Your task to perform on an android device: Open the calendar app, open the side menu, and click the "Day" option Image 0: 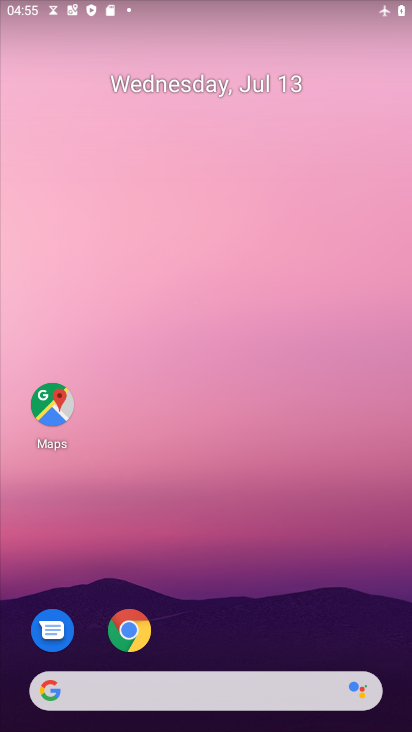
Step 0: drag from (324, 680) to (273, 16)
Your task to perform on an android device: Open the calendar app, open the side menu, and click the "Day" option Image 1: 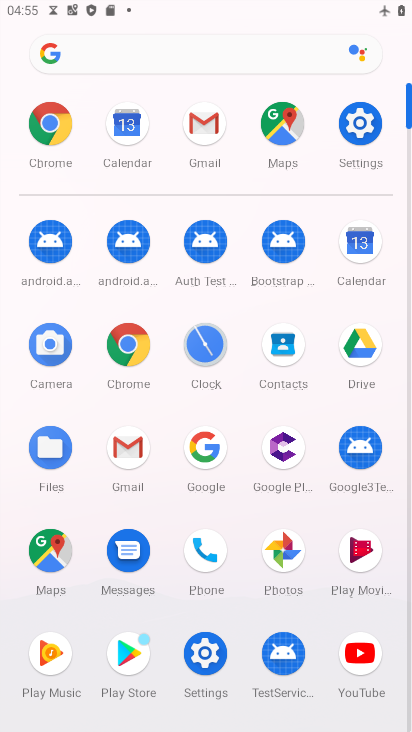
Step 1: click (355, 234)
Your task to perform on an android device: Open the calendar app, open the side menu, and click the "Day" option Image 2: 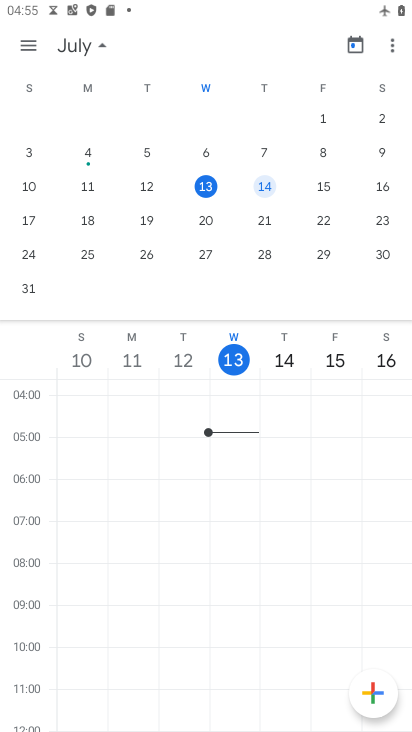
Step 2: click (25, 39)
Your task to perform on an android device: Open the calendar app, open the side menu, and click the "Day" option Image 3: 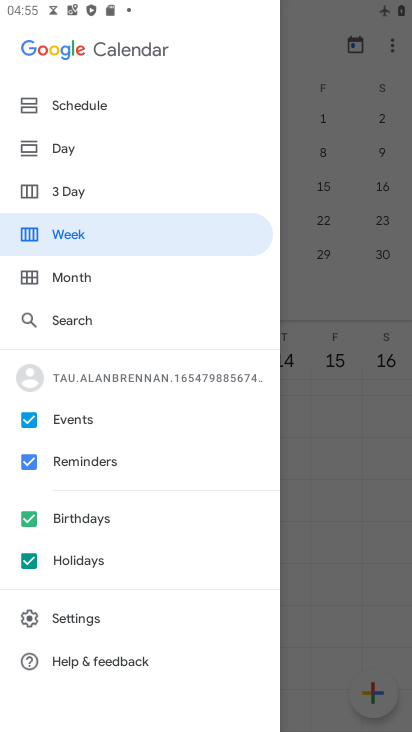
Step 3: click (69, 144)
Your task to perform on an android device: Open the calendar app, open the side menu, and click the "Day" option Image 4: 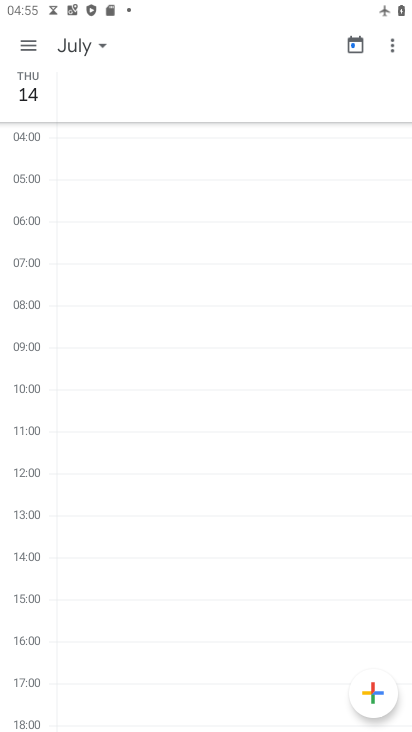
Step 4: task complete